Your task to perform on an android device: clear history in the chrome app Image 0: 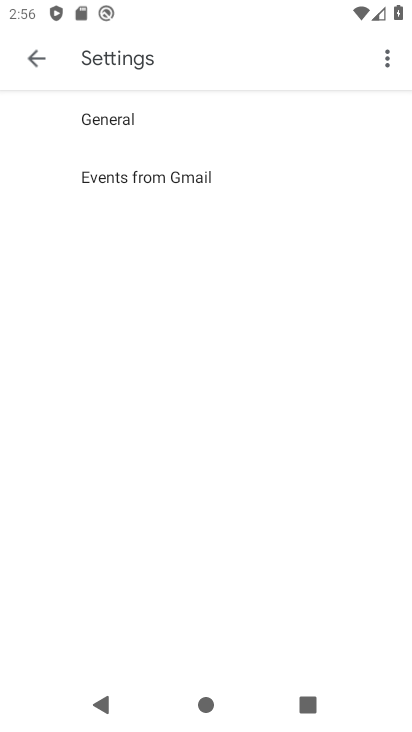
Step 0: press back button
Your task to perform on an android device: clear history in the chrome app Image 1: 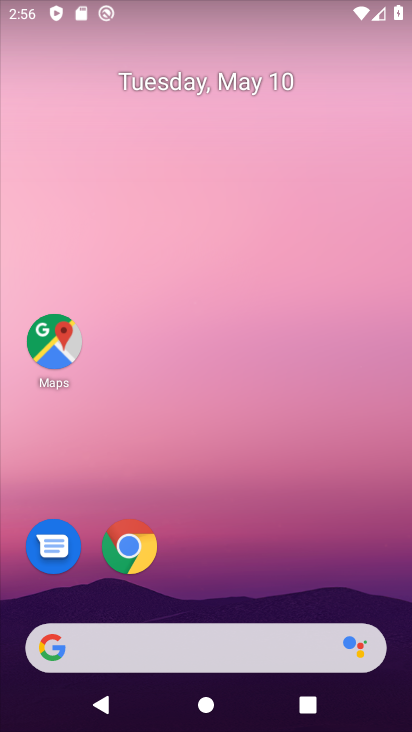
Step 1: click (124, 538)
Your task to perform on an android device: clear history in the chrome app Image 2: 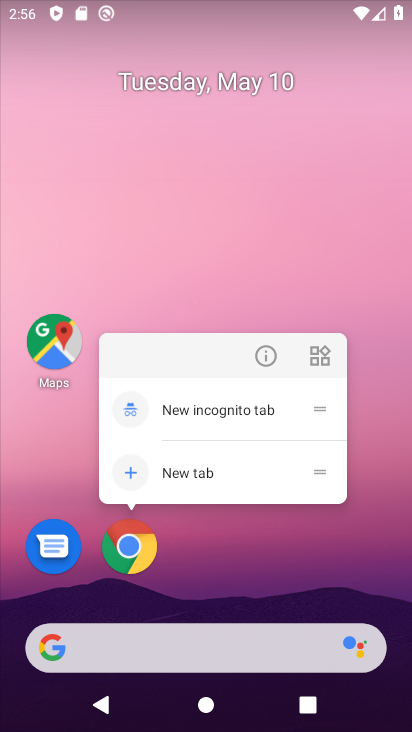
Step 2: click (148, 531)
Your task to perform on an android device: clear history in the chrome app Image 3: 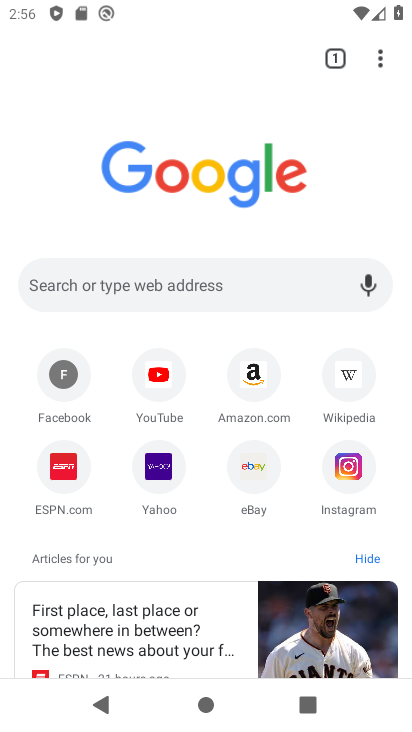
Step 3: task complete